Your task to perform on an android device: What is the news today? Image 0: 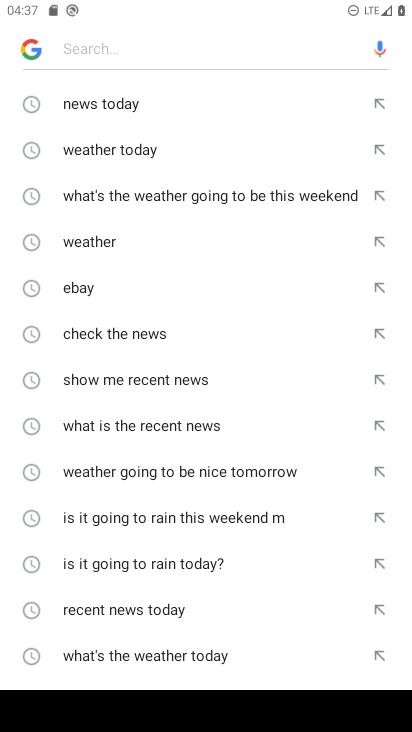
Step 0: press home button
Your task to perform on an android device: What is the news today? Image 1: 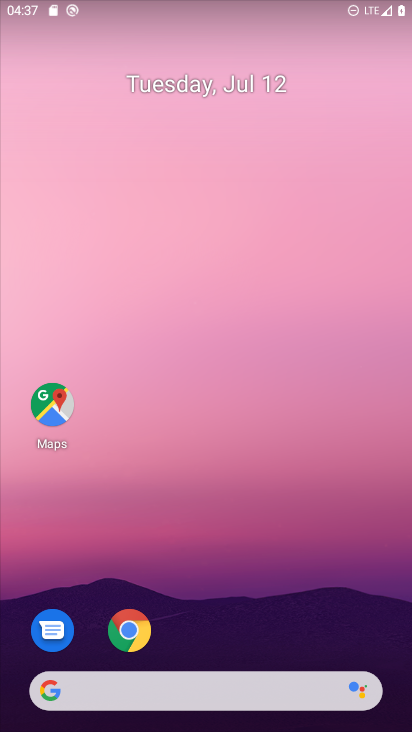
Step 1: drag from (323, 679) to (272, 165)
Your task to perform on an android device: What is the news today? Image 2: 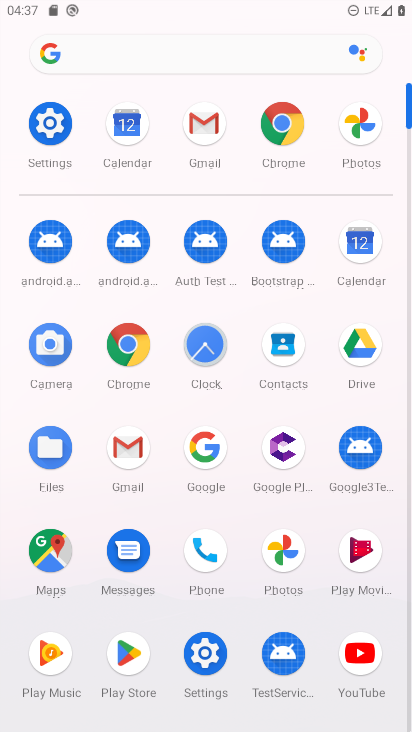
Step 2: click (139, 335)
Your task to perform on an android device: What is the news today? Image 3: 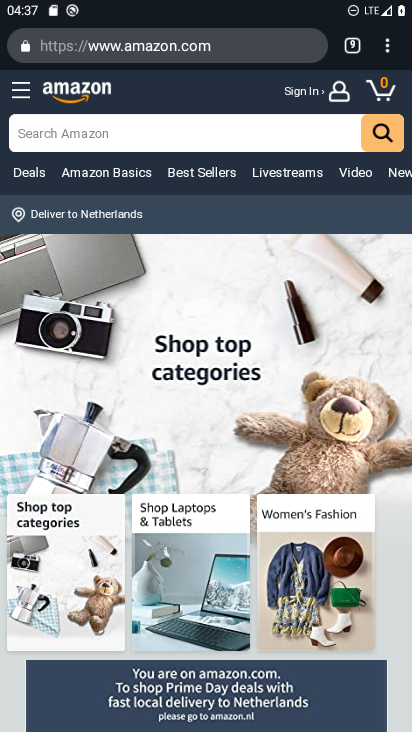
Step 3: click (183, 43)
Your task to perform on an android device: What is the news today? Image 4: 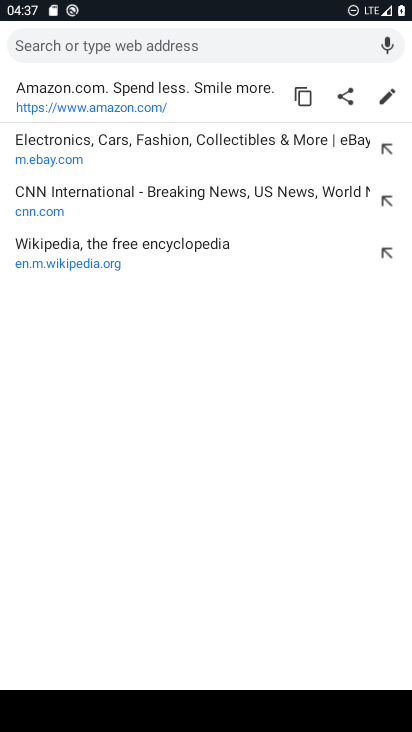
Step 4: type "news today"
Your task to perform on an android device: What is the news today? Image 5: 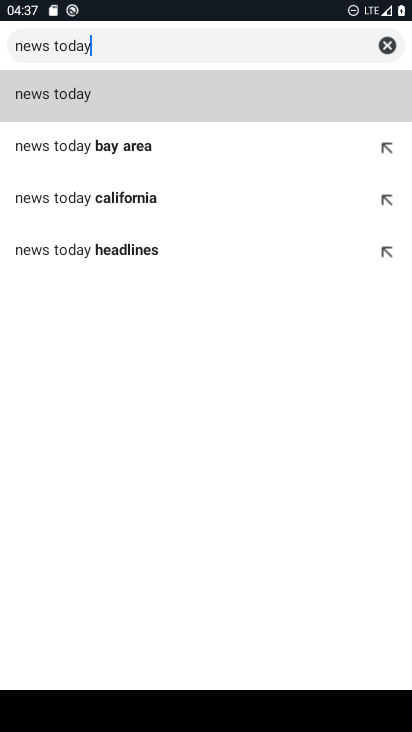
Step 5: click (156, 113)
Your task to perform on an android device: What is the news today? Image 6: 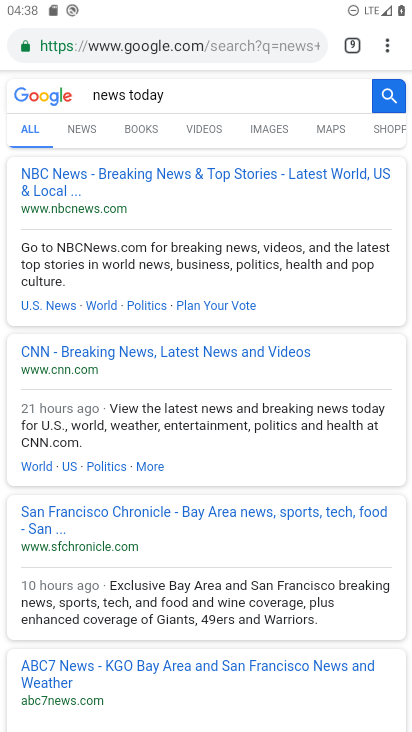
Step 6: task complete